Your task to perform on an android device: What's on my calendar tomorrow? Image 0: 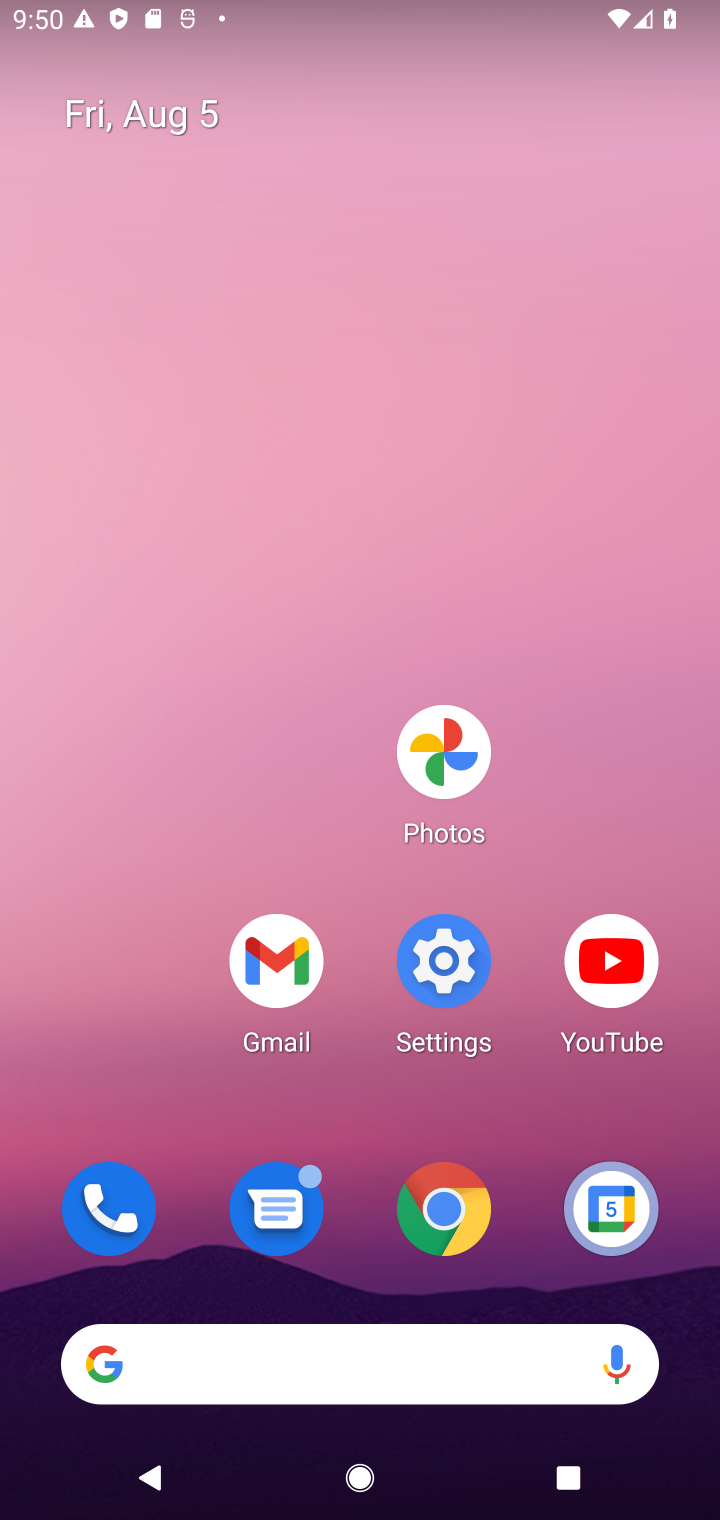
Step 0: drag from (347, 1202) to (308, 137)
Your task to perform on an android device: What's on my calendar tomorrow? Image 1: 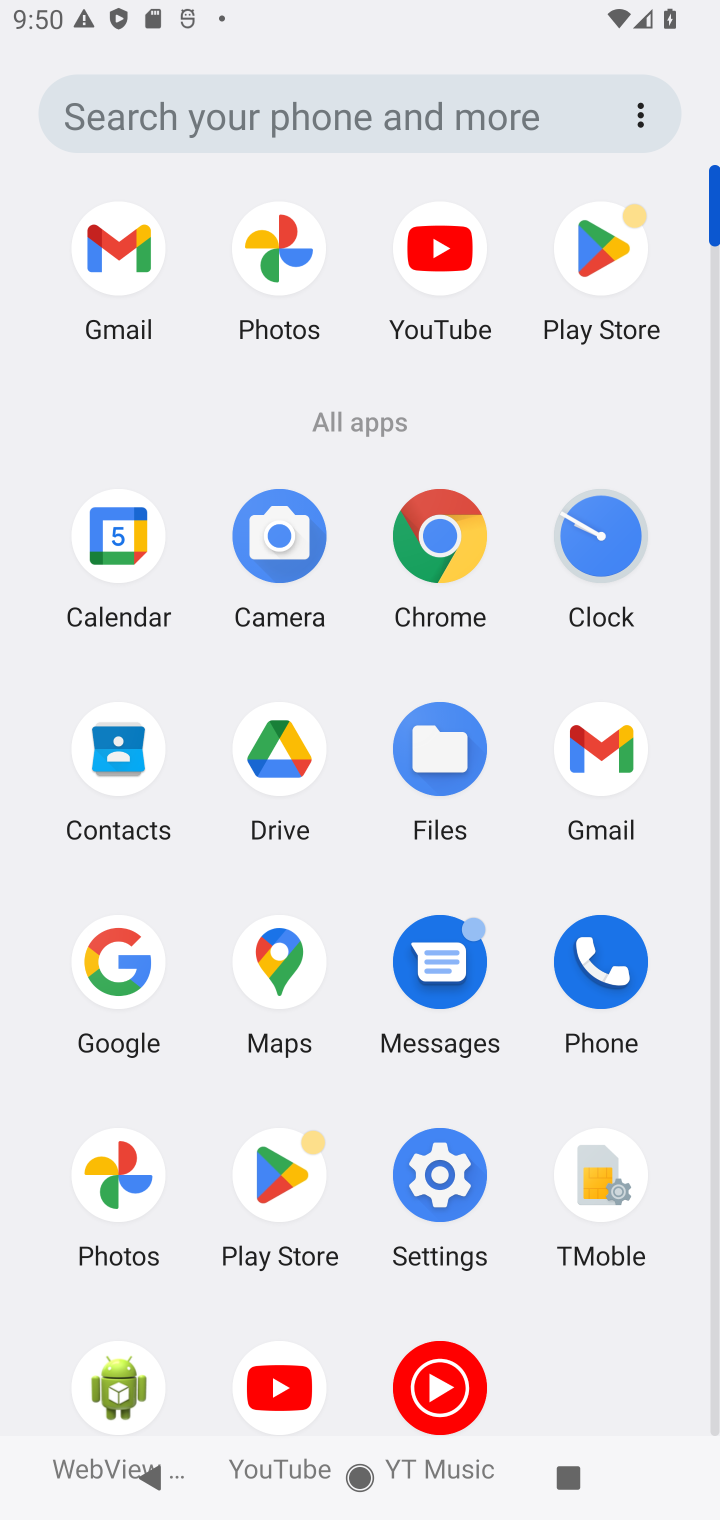
Step 1: click (98, 549)
Your task to perform on an android device: What's on my calendar tomorrow? Image 2: 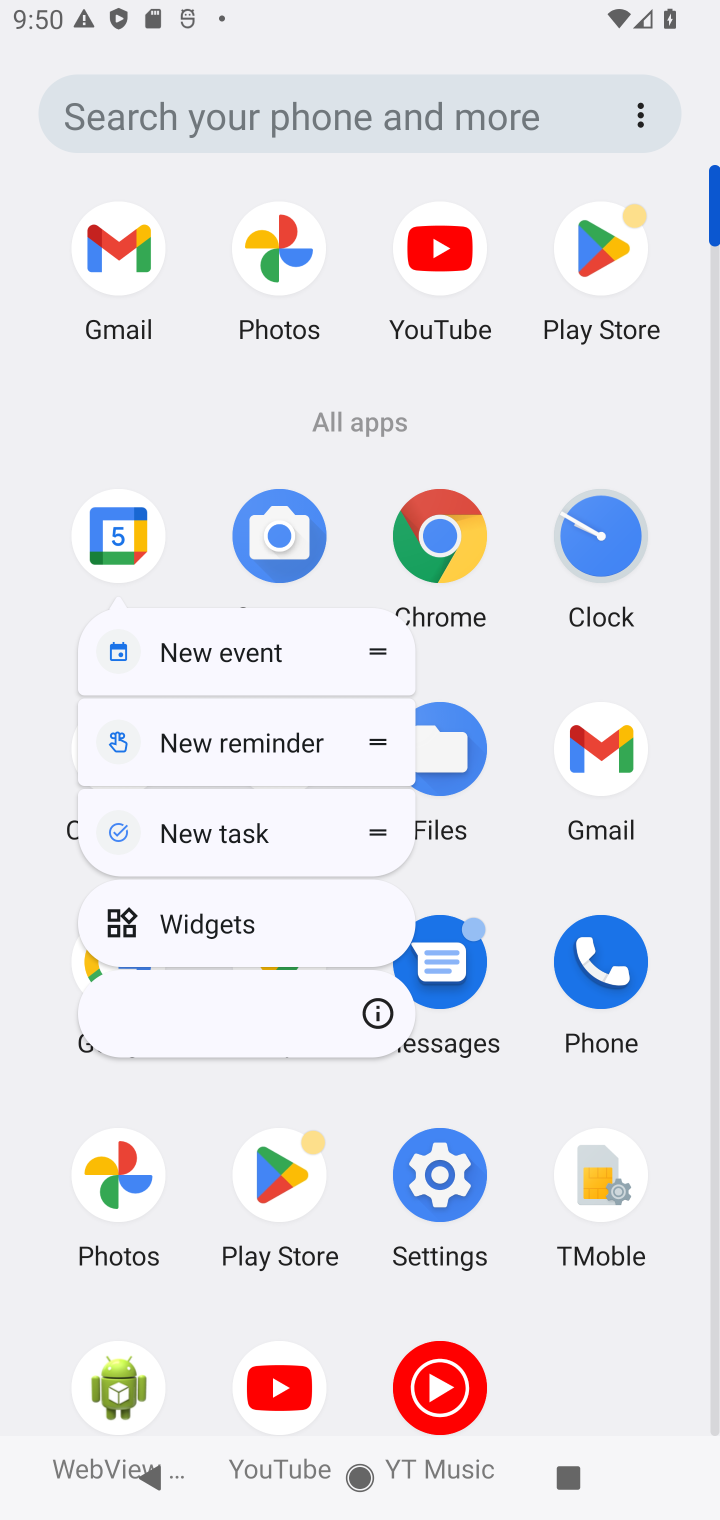
Step 2: click (374, 1020)
Your task to perform on an android device: What's on my calendar tomorrow? Image 3: 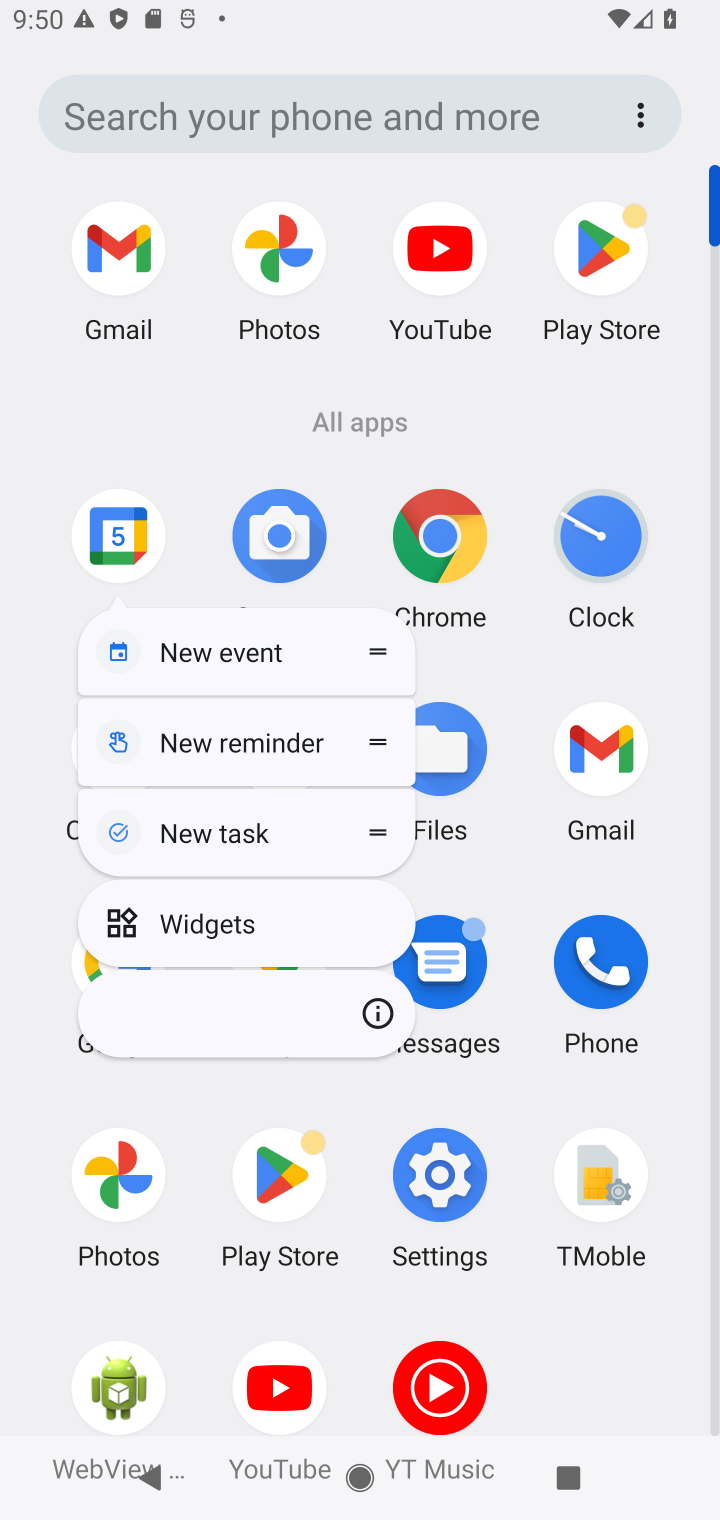
Step 3: click (384, 1021)
Your task to perform on an android device: What's on my calendar tomorrow? Image 4: 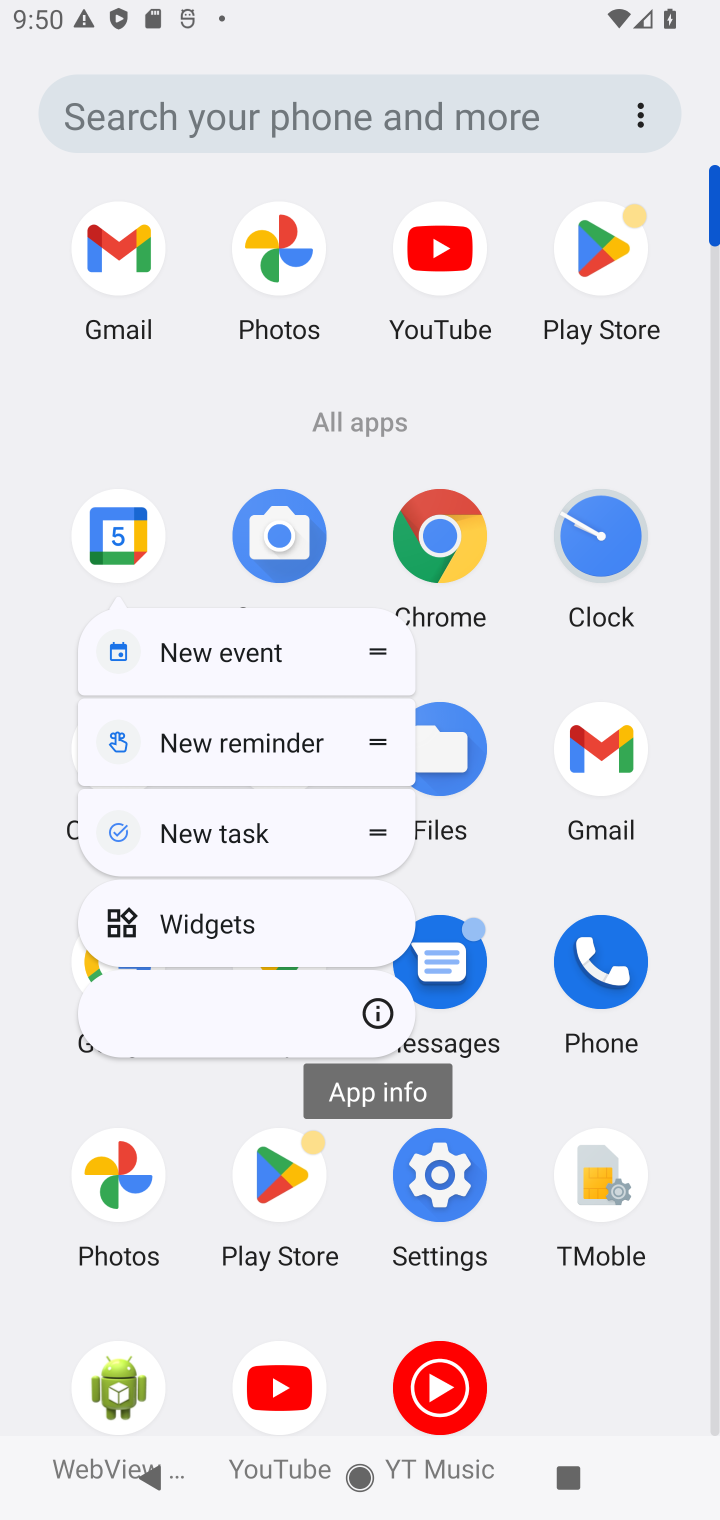
Step 4: click (384, 1021)
Your task to perform on an android device: What's on my calendar tomorrow? Image 5: 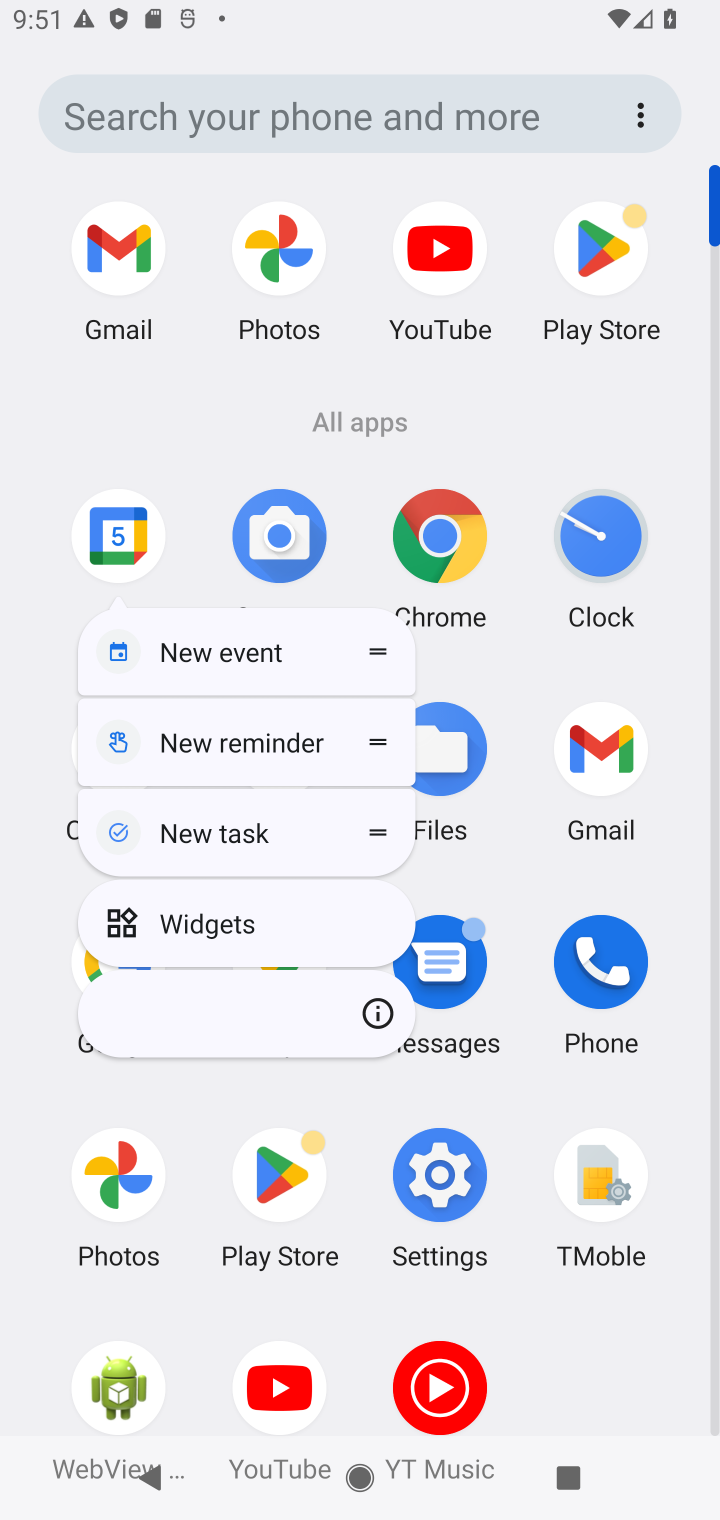
Step 5: click (379, 1017)
Your task to perform on an android device: What's on my calendar tomorrow? Image 6: 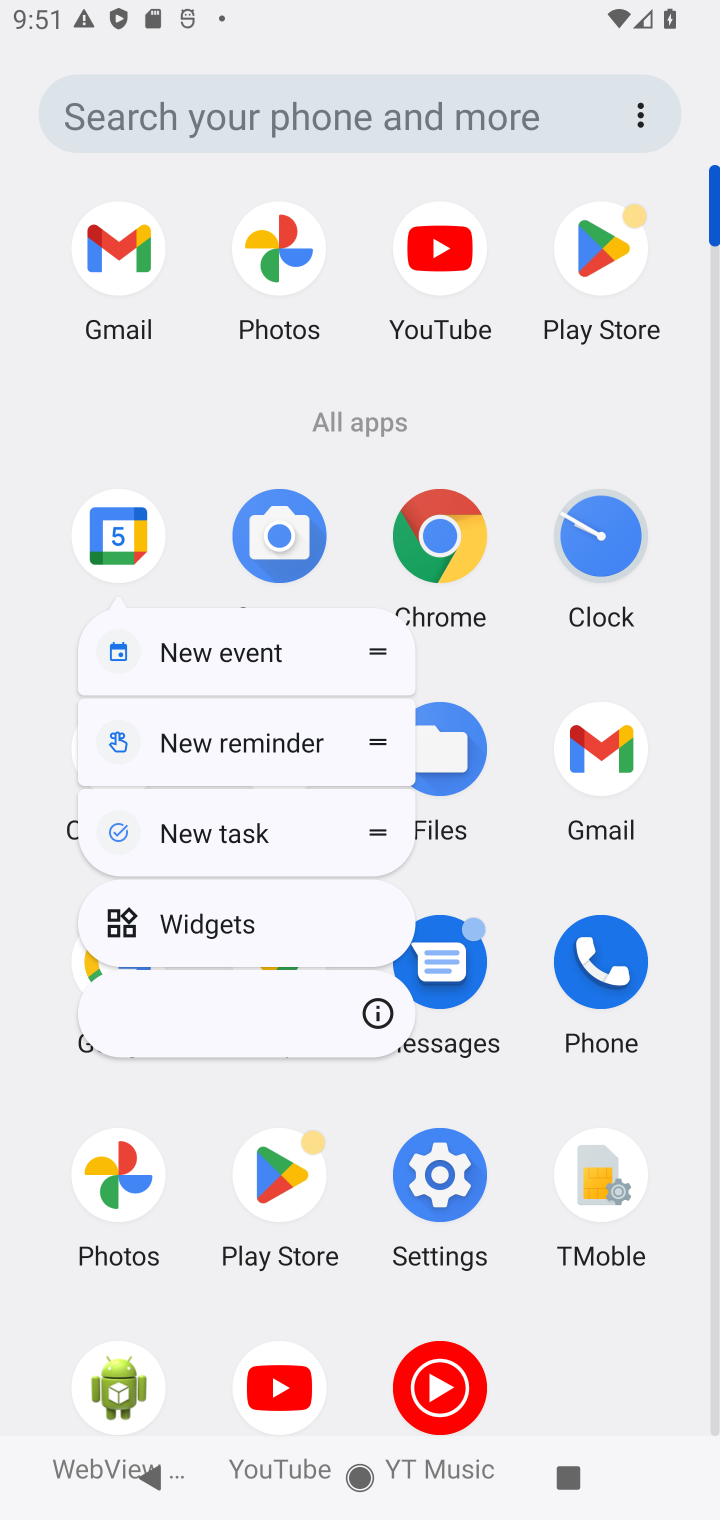
Step 6: click (379, 1017)
Your task to perform on an android device: What's on my calendar tomorrow? Image 7: 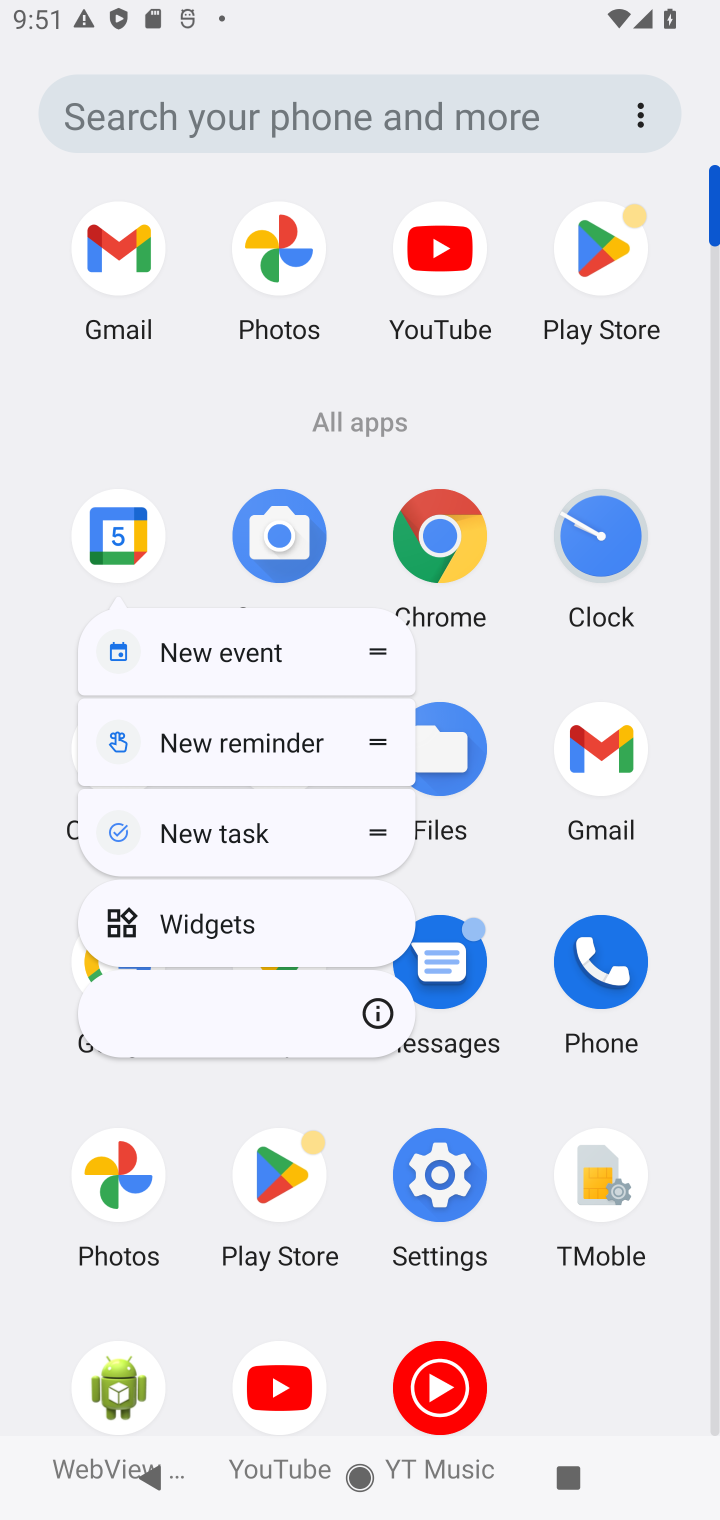
Step 7: click (359, 1013)
Your task to perform on an android device: What's on my calendar tomorrow? Image 8: 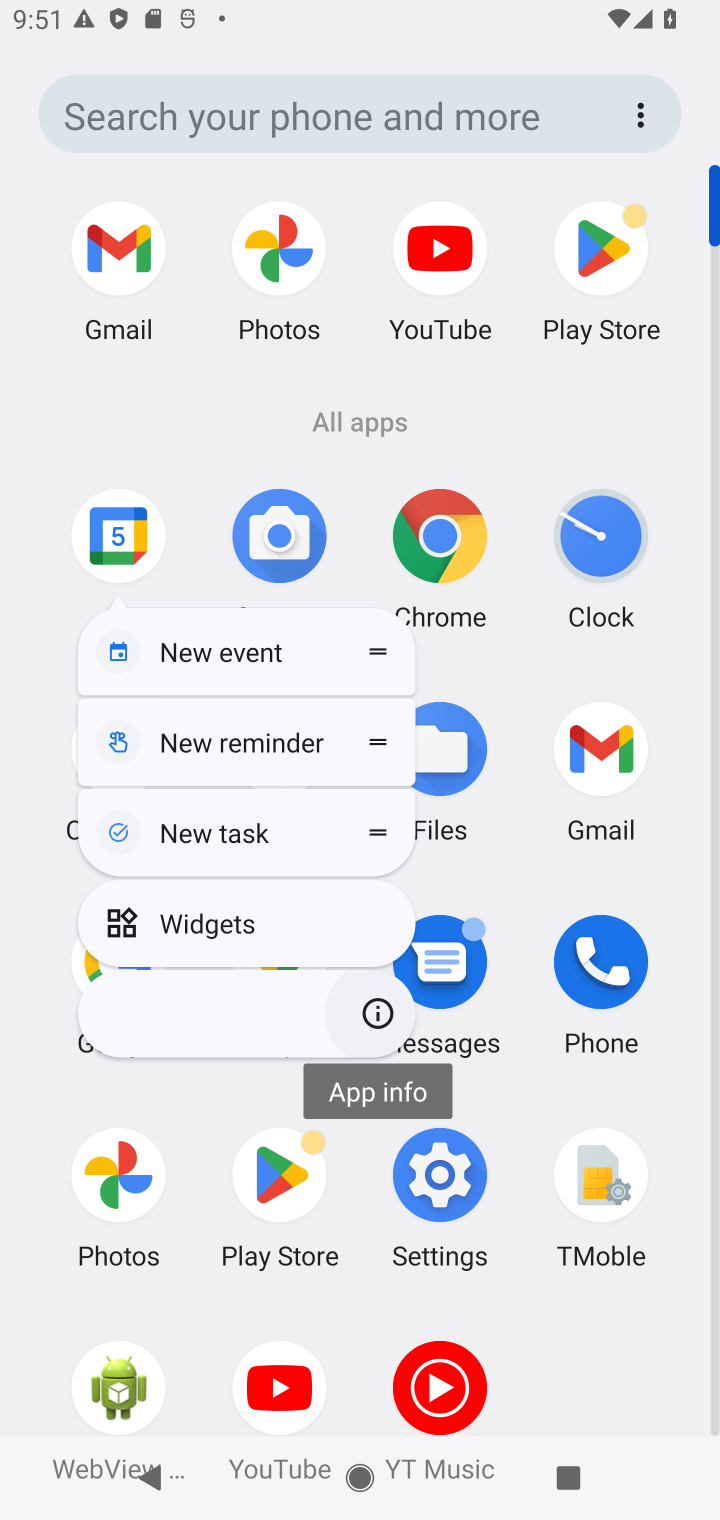
Step 8: click (363, 1015)
Your task to perform on an android device: What's on my calendar tomorrow? Image 9: 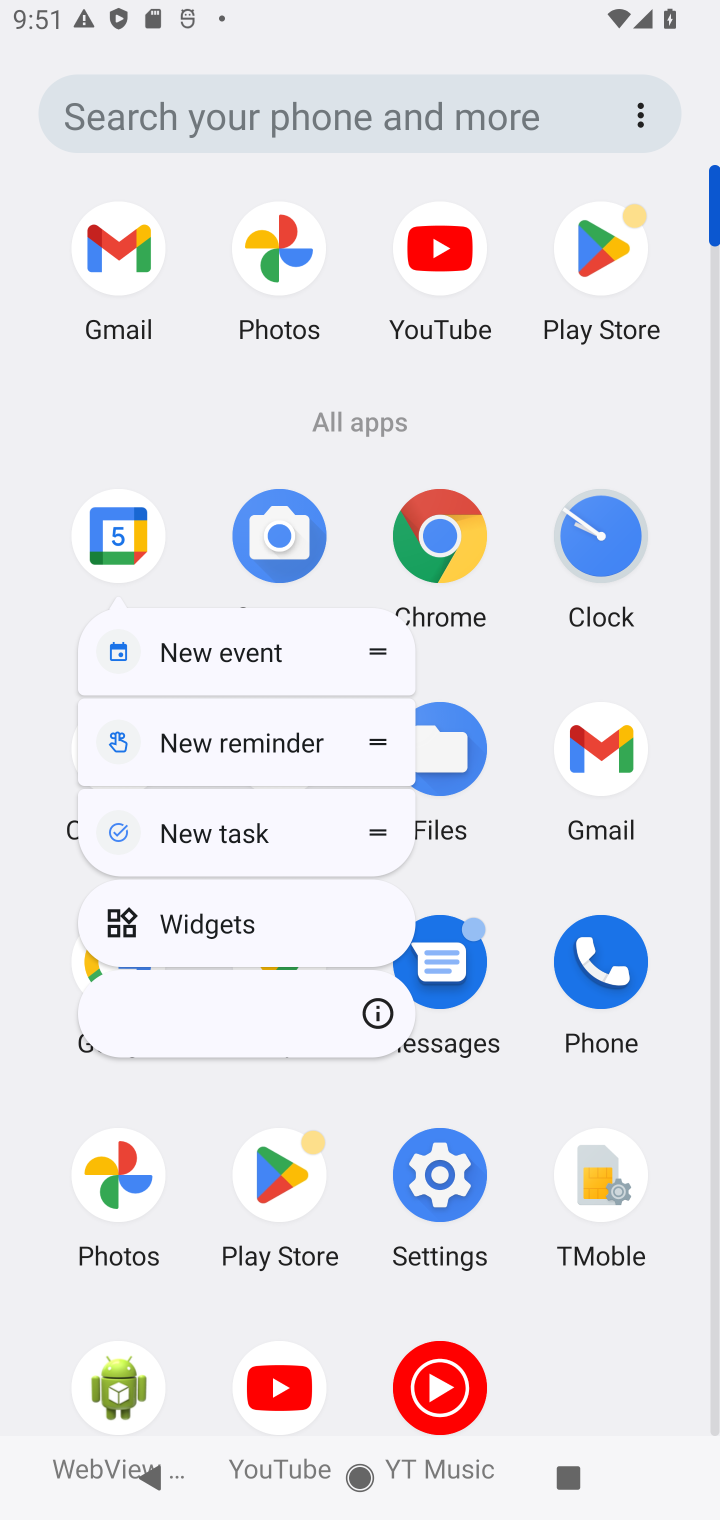
Step 9: click (97, 521)
Your task to perform on an android device: What's on my calendar tomorrow? Image 10: 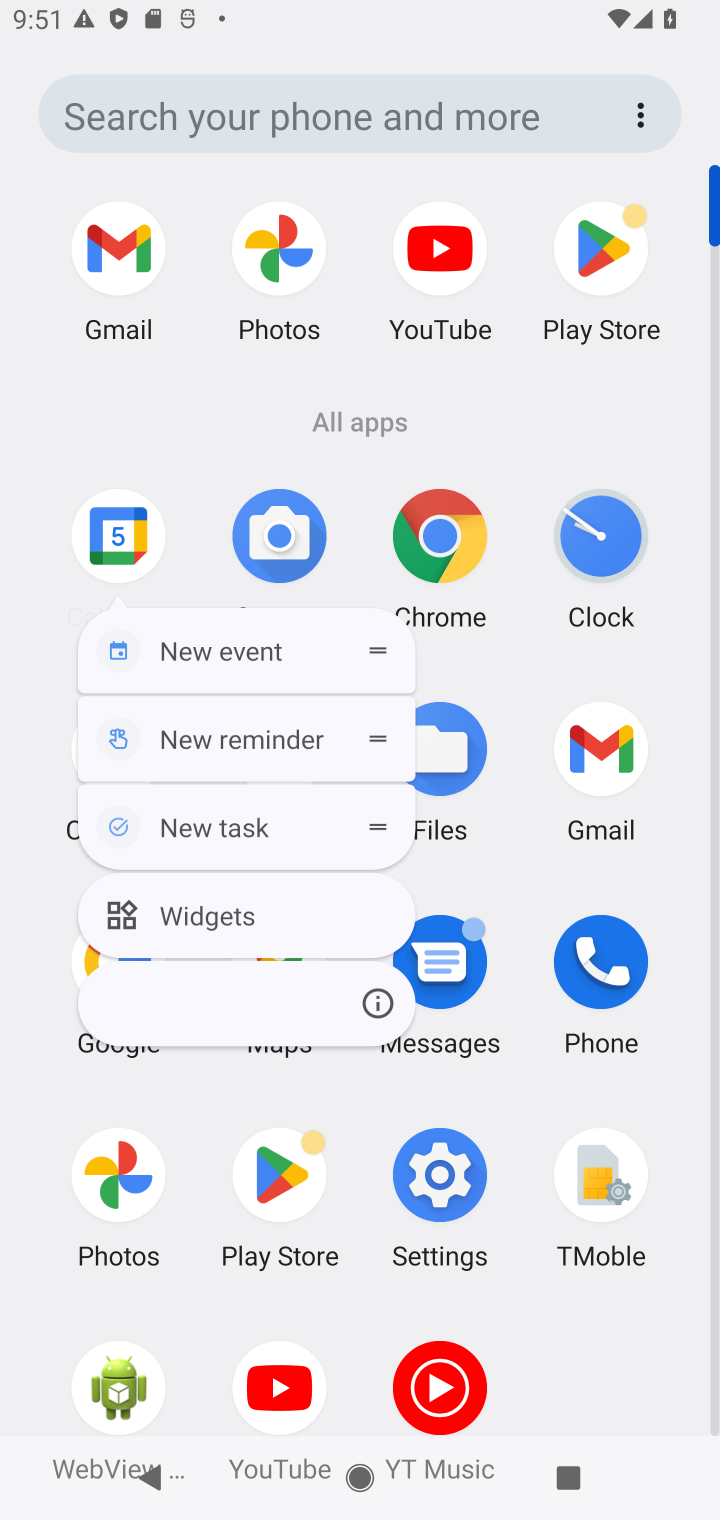
Step 10: click (99, 519)
Your task to perform on an android device: What's on my calendar tomorrow? Image 11: 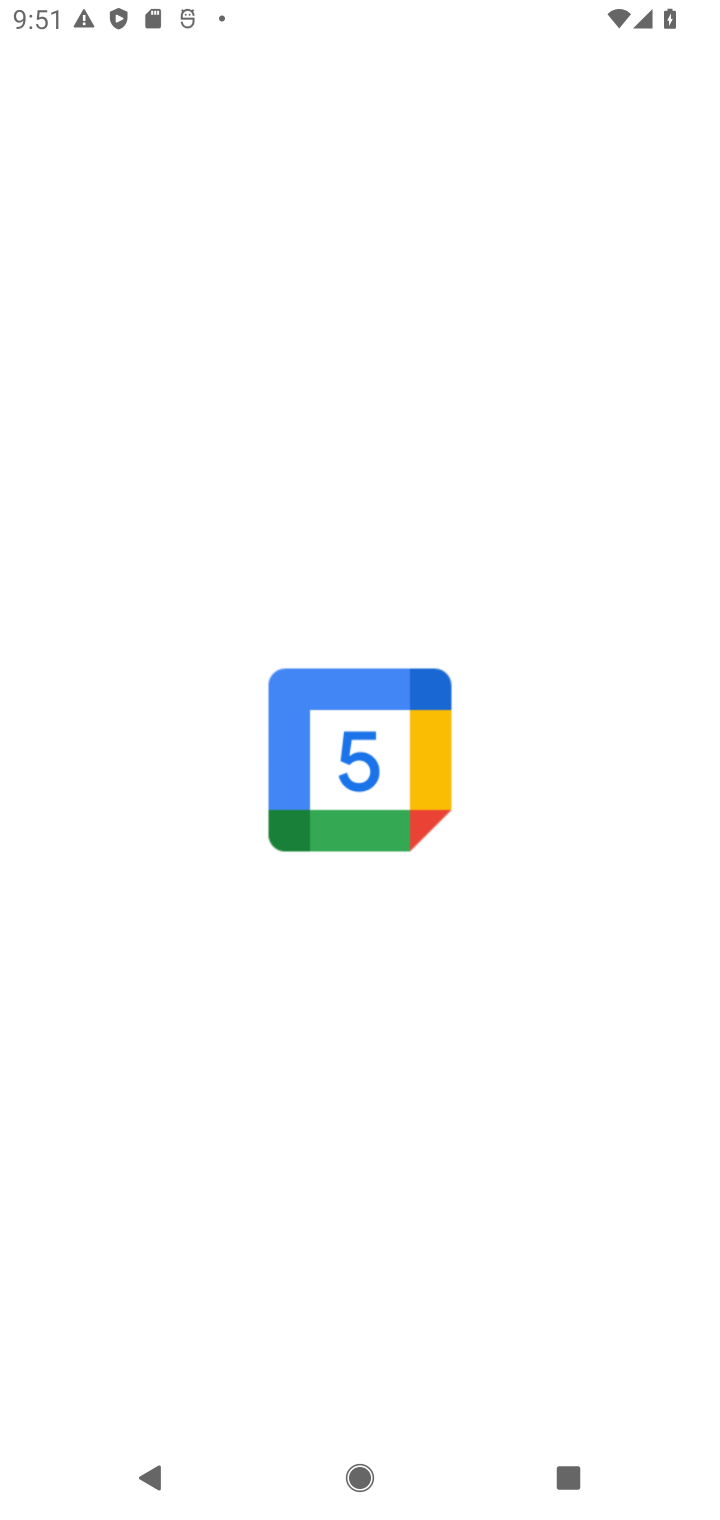
Step 11: drag from (342, 992) to (529, 632)
Your task to perform on an android device: What's on my calendar tomorrow? Image 12: 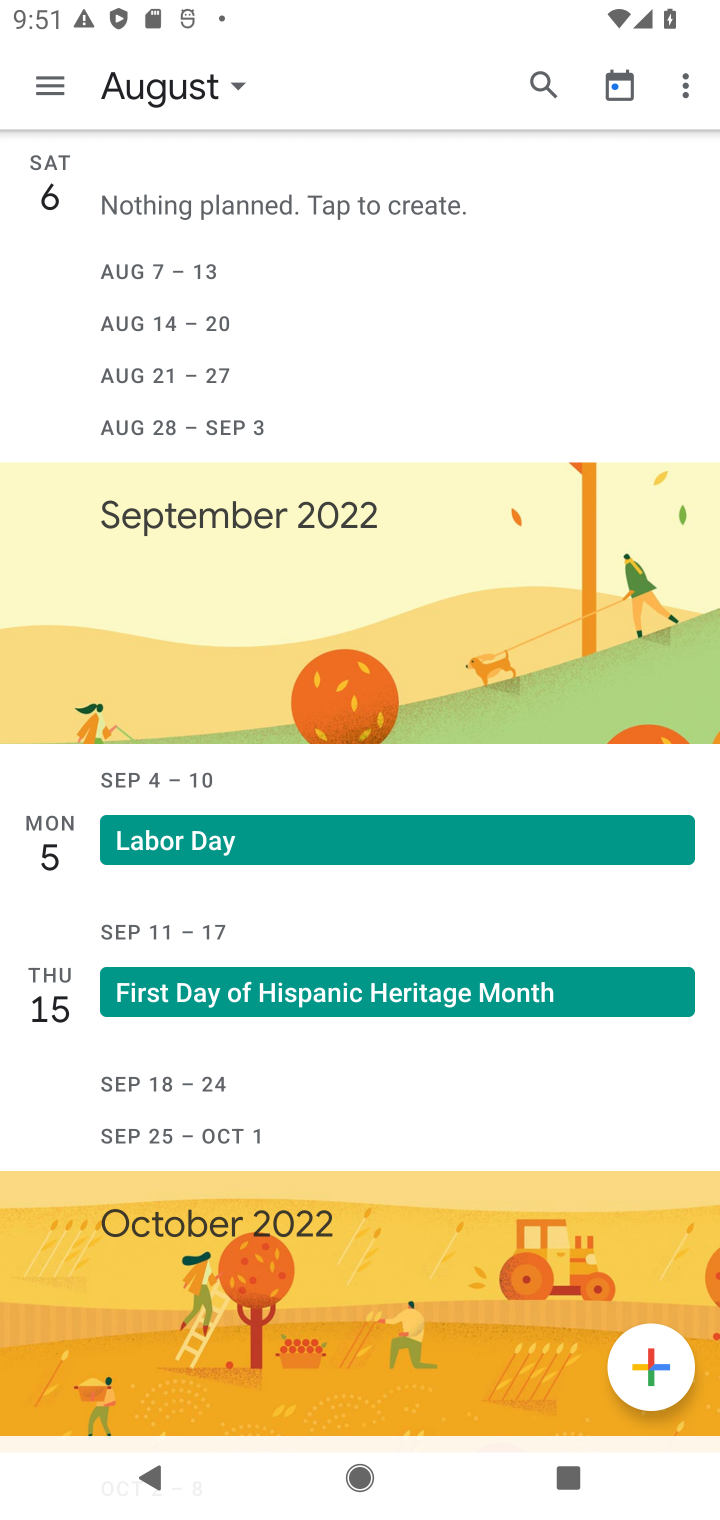
Step 12: drag from (342, 1370) to (461, 1485)
Your task to perform on an android device: What's on my calendar tomorrow? Image 13: 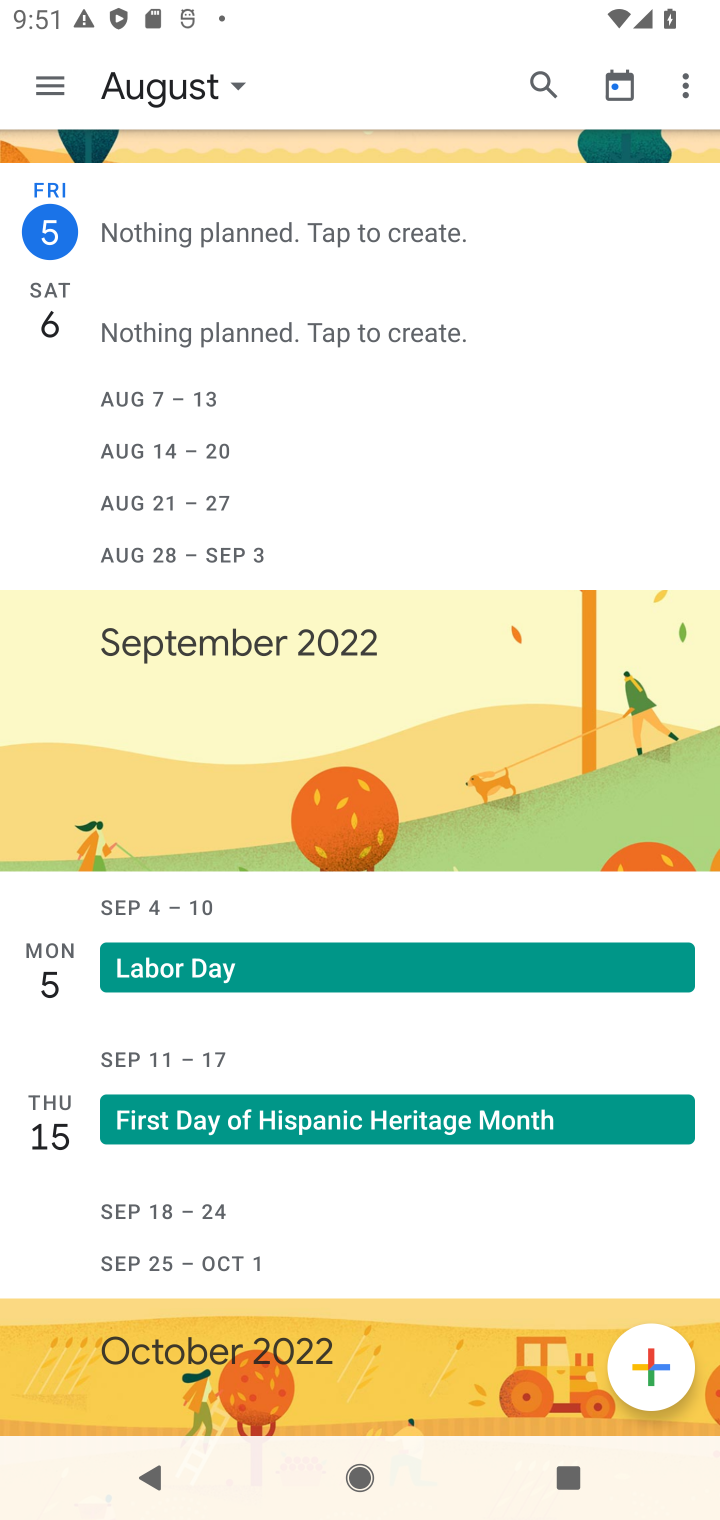
Step 13: click (173, 85)
Your task to perform on an android device: What's on my calendar tomorrow? Image 14: 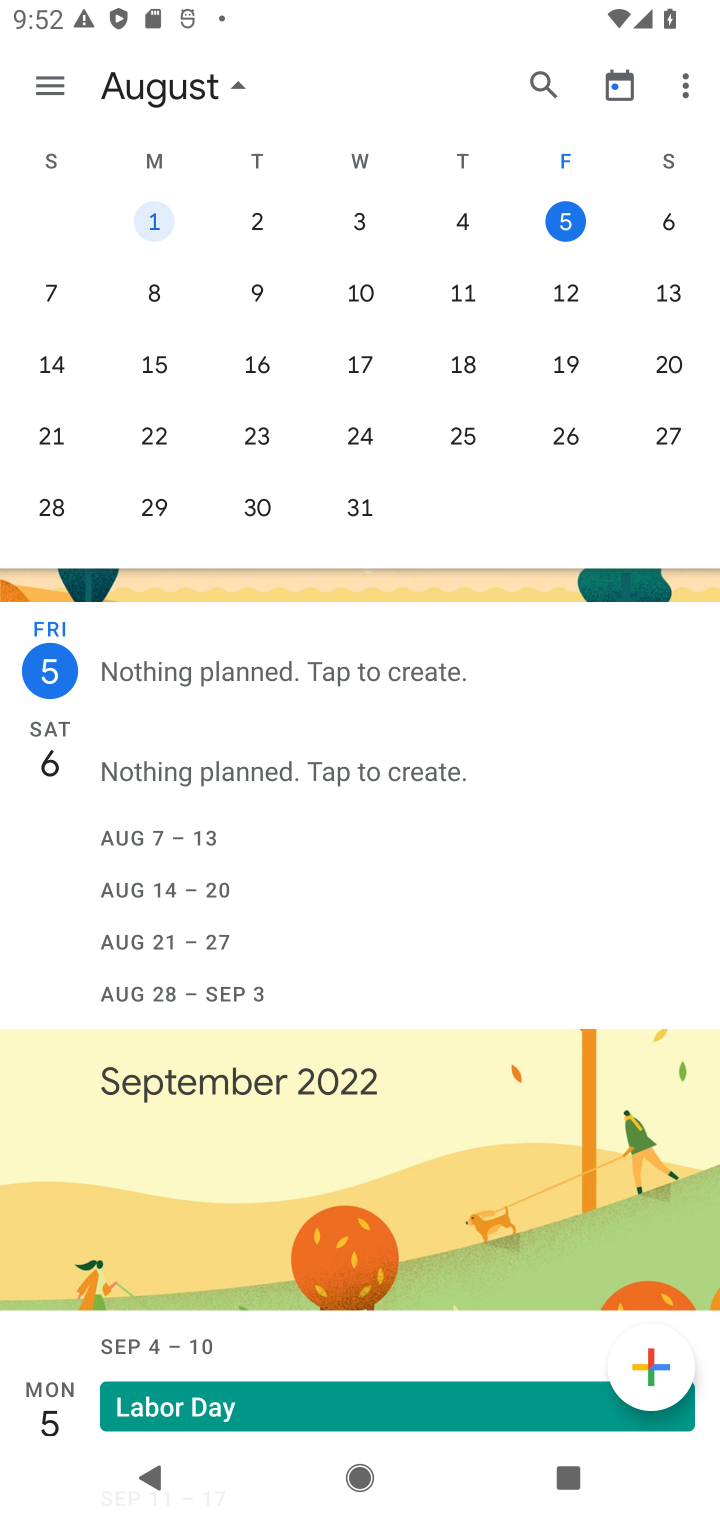
Step 14: click (567, 214)
Your task to perform on an android device: What's on my calendar tomorrow? Image 15: 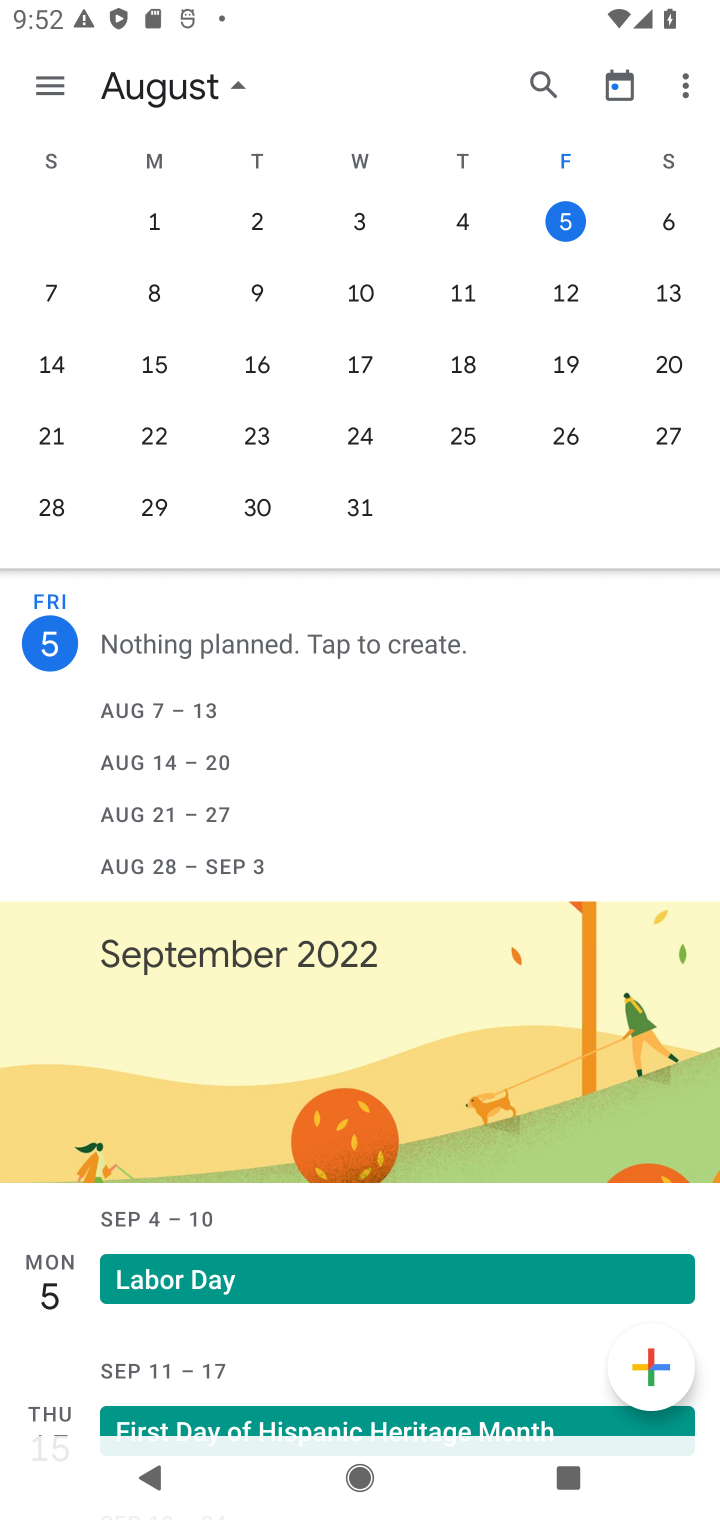
Step 15: click (566, 221)
Your task to perform on an android device: What's on my calendar tomorrow? Image 16: 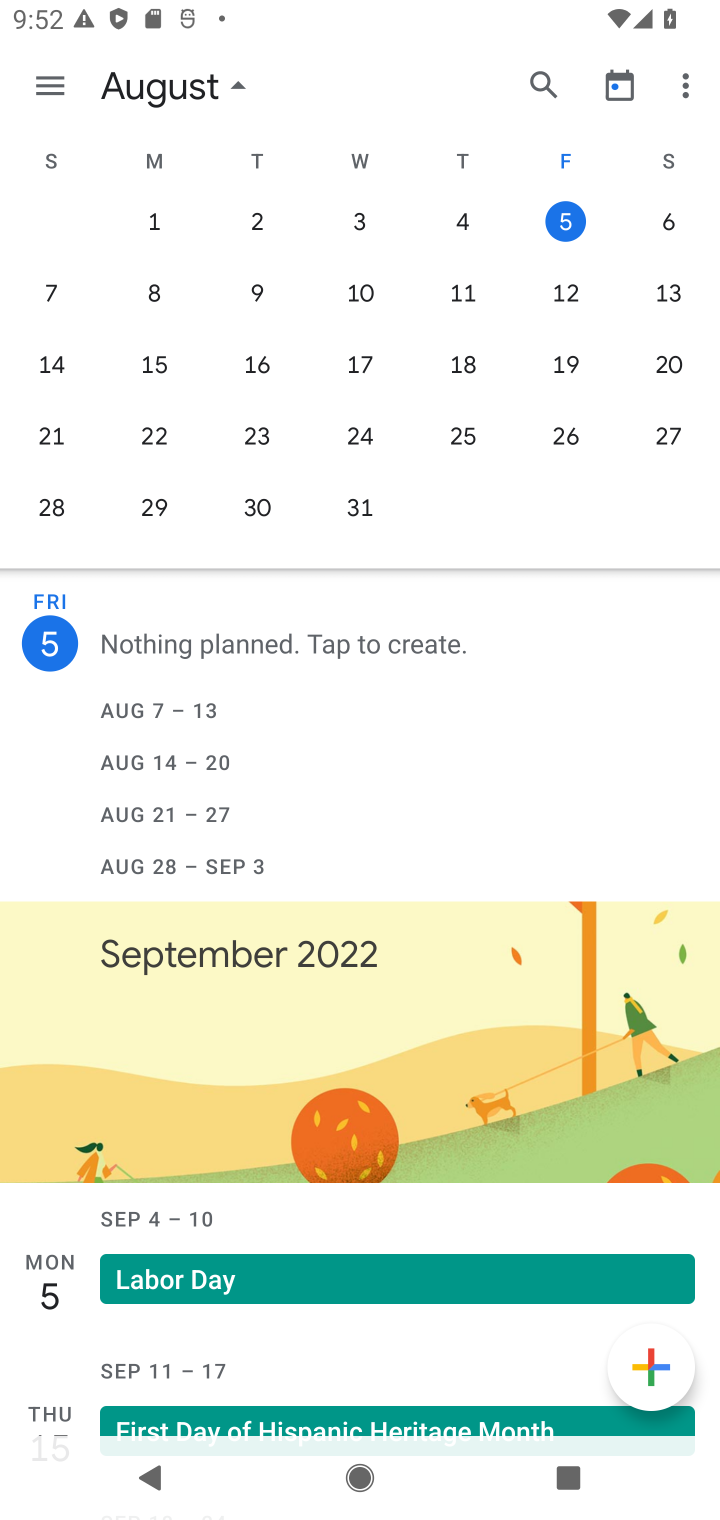
Step 16: click (566, 221)
Your task to perform on an android device: What's on my calendar tomorrow? Image 17: 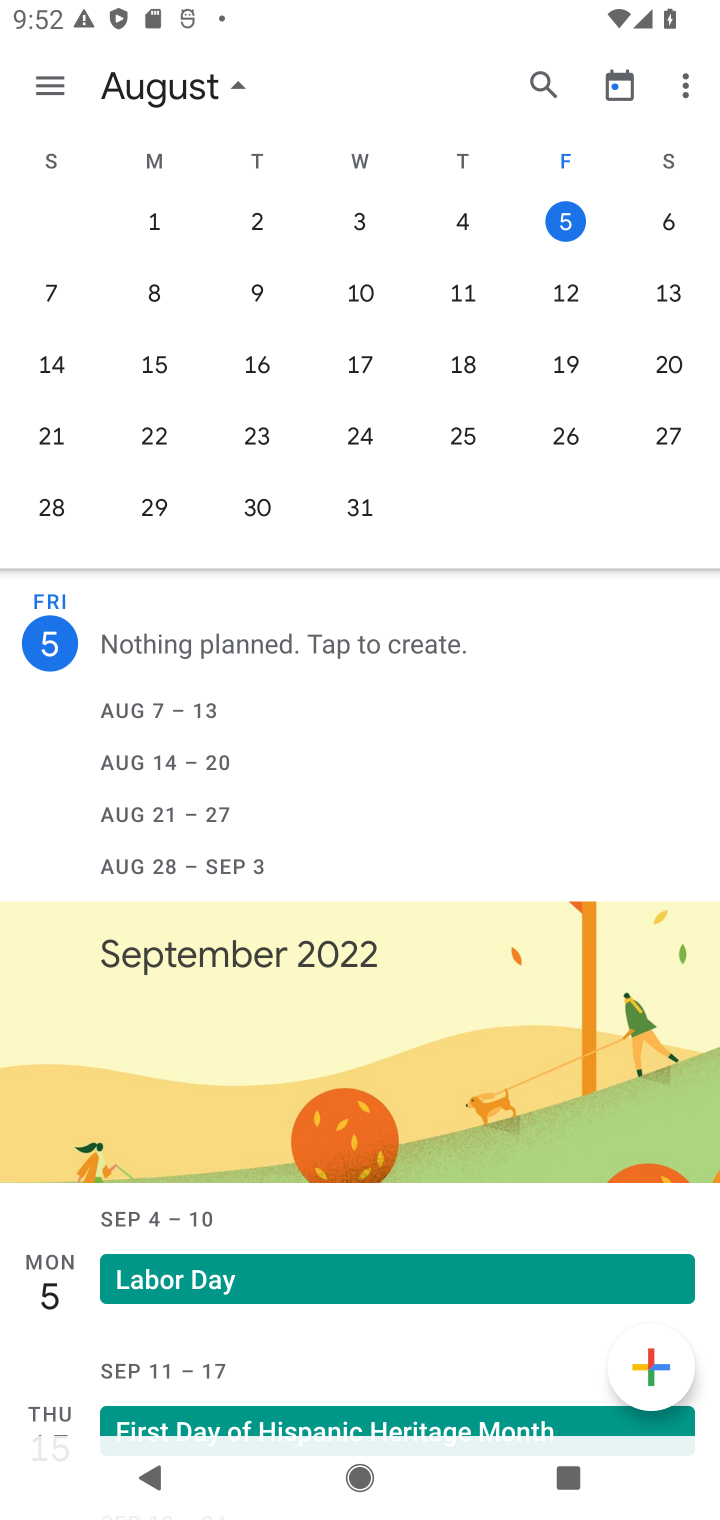
Step 17: click (664, 221)
Your task to perform on an android device: What's on my calendar tomorrow? Image 18: 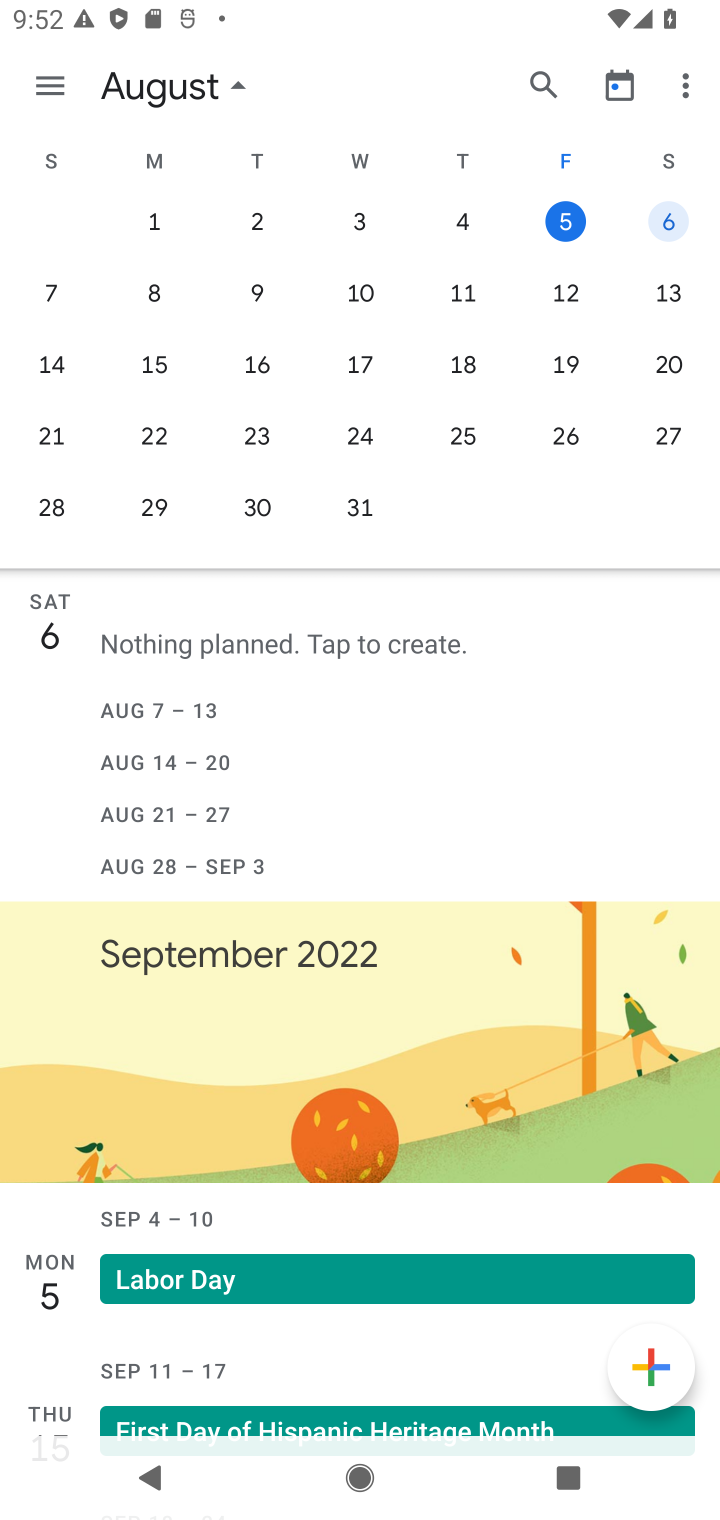
Step 18: click (673, 221)
Your task to perform on an android device: What's on my calendar tomorrow? Image 19: 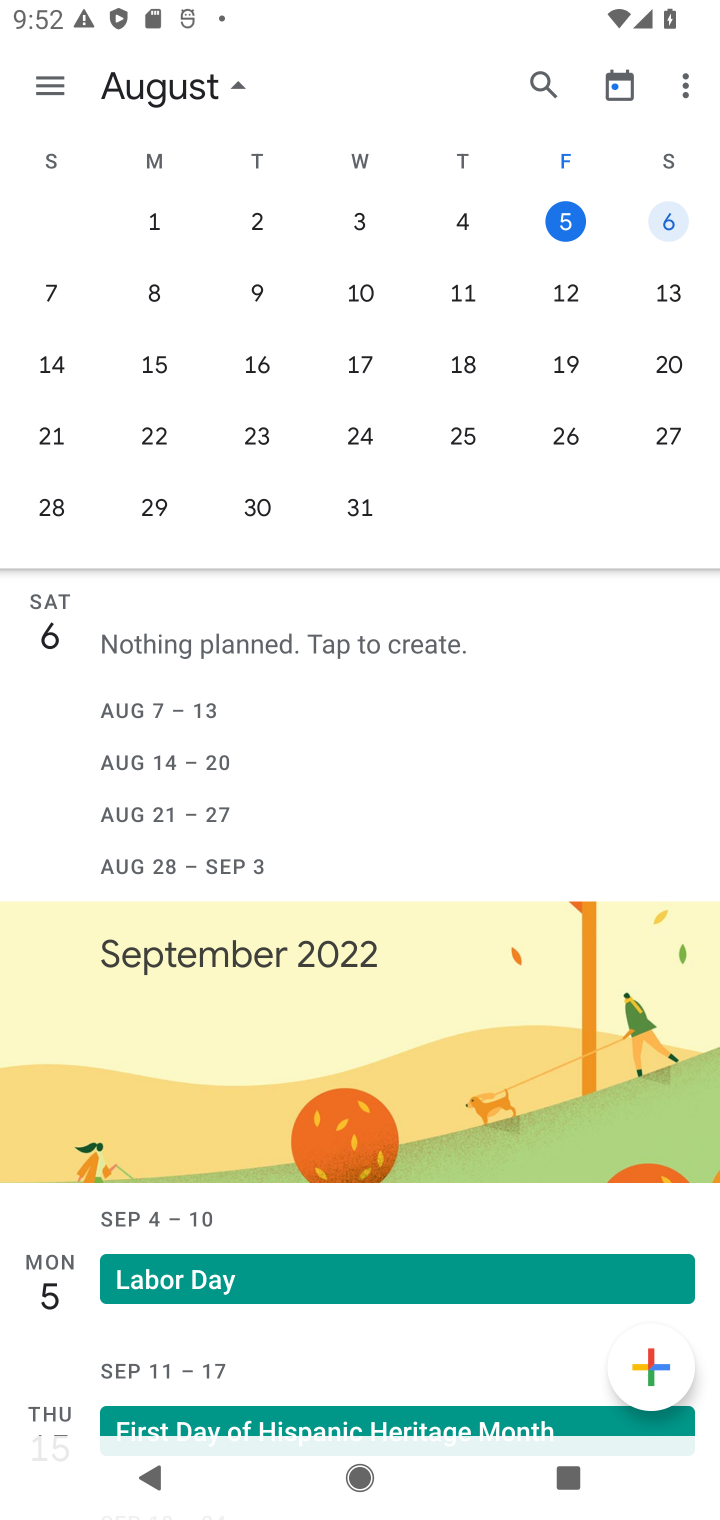
Step 19: task complete